Your task to perform on an android device: Open Google Chrome Image 0: 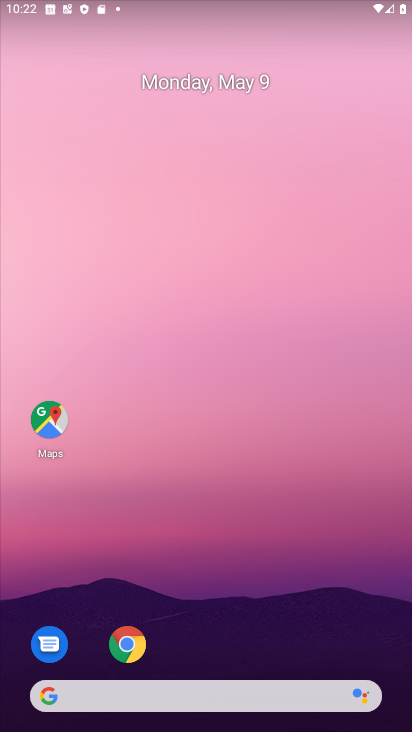
Step 0: click (129, 645)
Your task to perform on an android device: Open Google Chrome Image 1: 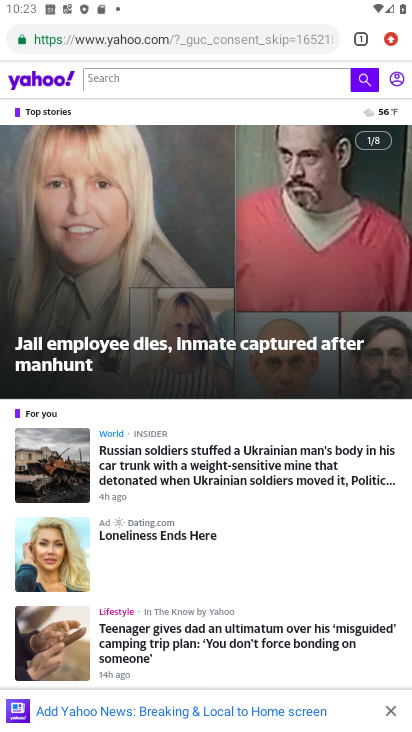
Step 1: task complete